Your task to perform on an android device: turn off notifications in google photos Image 0: 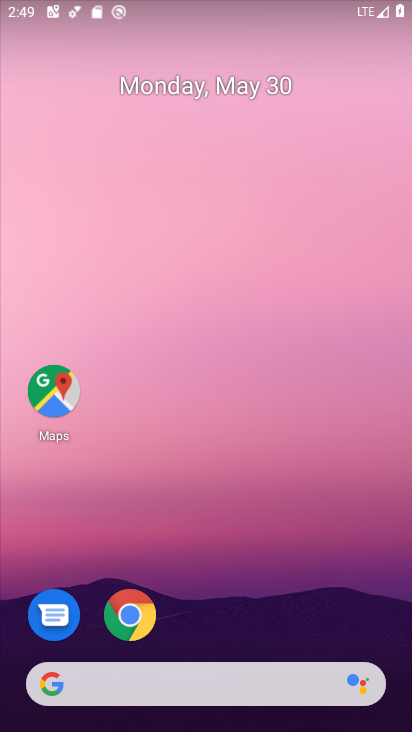
Step 0: drag from (279, 605) to (325, 50)
Your task to perform on an android device: turn off notifications in google photos Image 1: 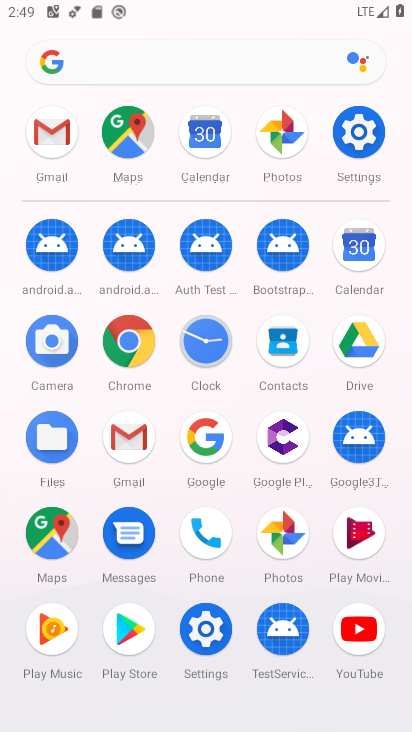
Step 1: click (347, 128)
Your task to perform on an android device: turn off notifications in google photos Image 2: 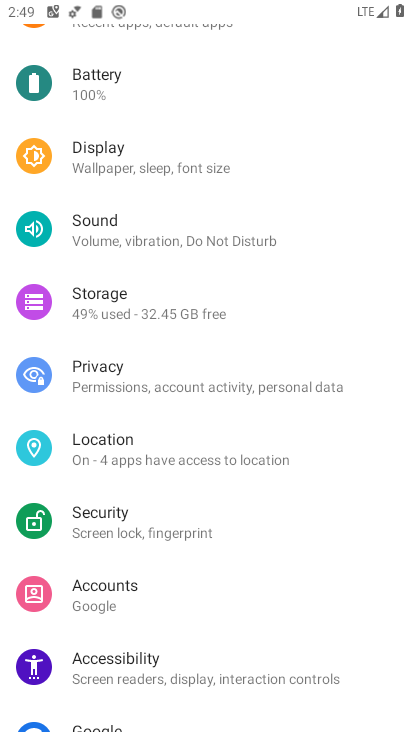
Step 2: drag from (216, 218) to (221, 587)
Your task to perform on an android device: turn off notifications in google photos Image 3: 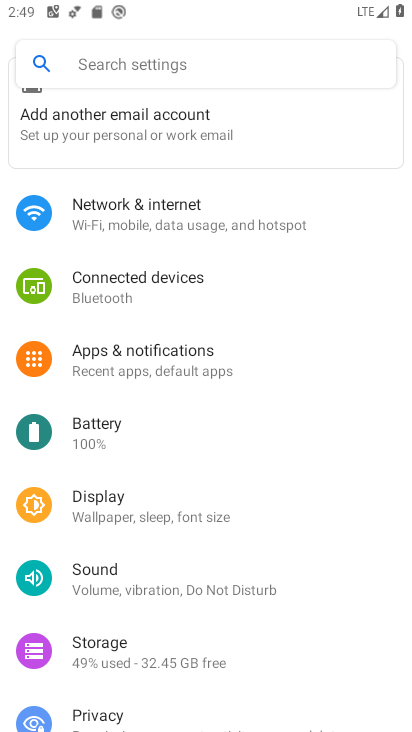
Step 3: click (213, 351)
Your task to perform on an android device: turn off notifications in google photos Image 4: 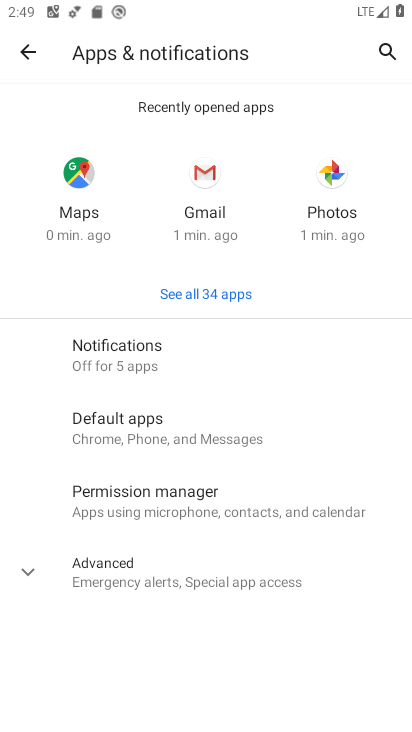
Step 4: click (337, 194)
Your task to perform on an android device: turn off notifications in google photos Image 5: 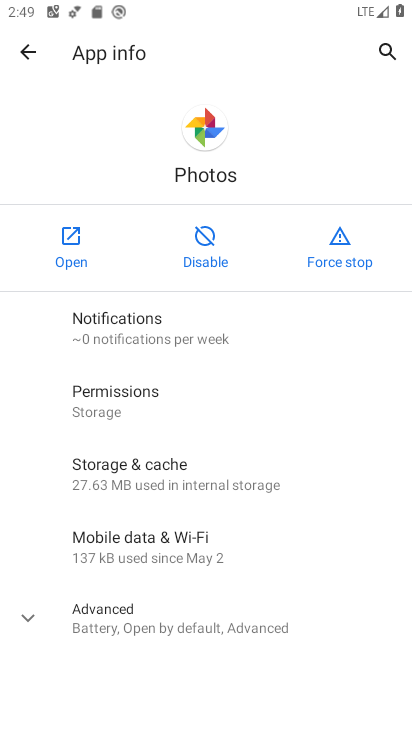
Step 5: click (188, 323)
Your task to perform on an android device: turn off notifications in google photos Image 6: 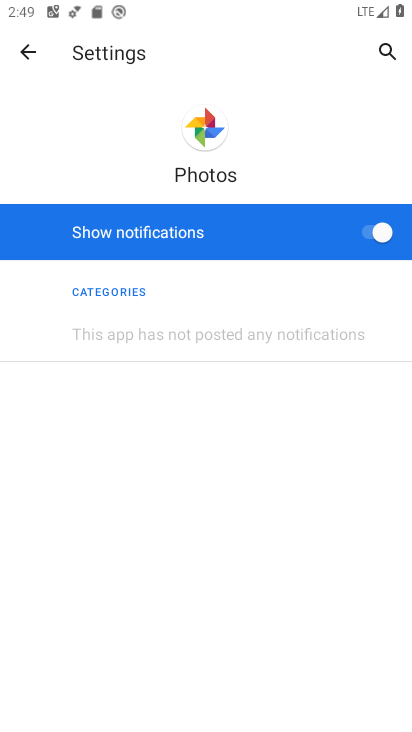
Step 6: click (373, 236)
Your task to perform on an android device: turn off notifications in google photos Image 7: 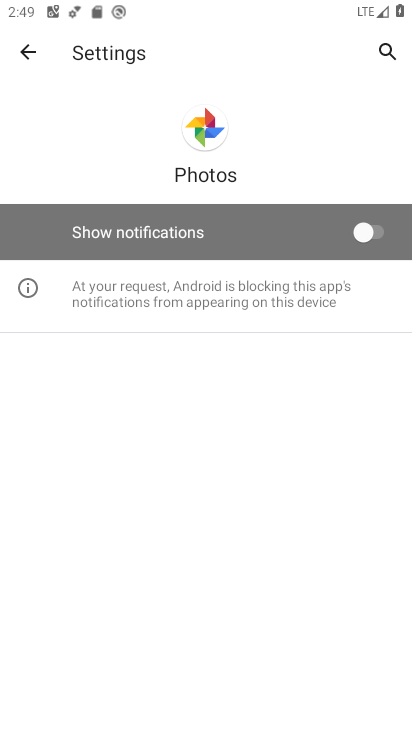
Step 7: task complete